Your task to perform on an android device: turn off sleep mode Image 0: 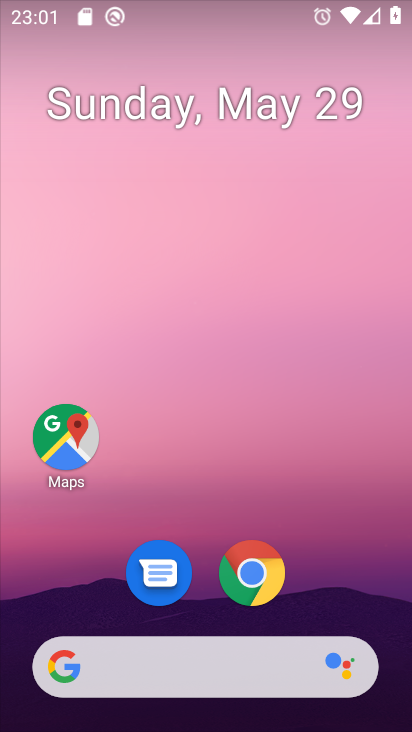
Step 0: drag from (211, 503) to (222, 1)
Your task to perform on an android device: turn off sleep mode Image 1: 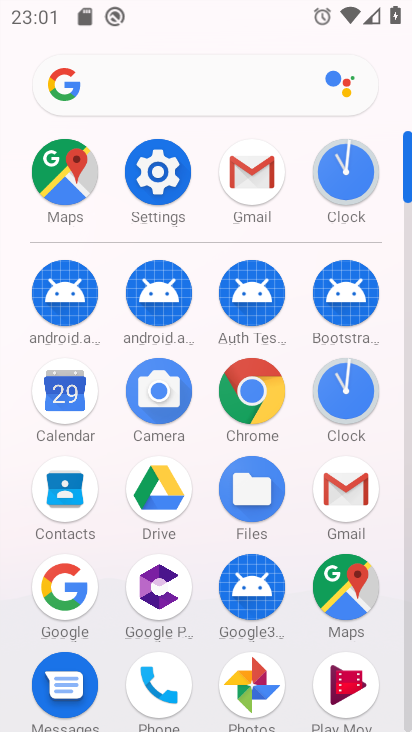
Step 1: click (156, 176)
Your task to perform on an android device: turn off sleep mode Image 2: 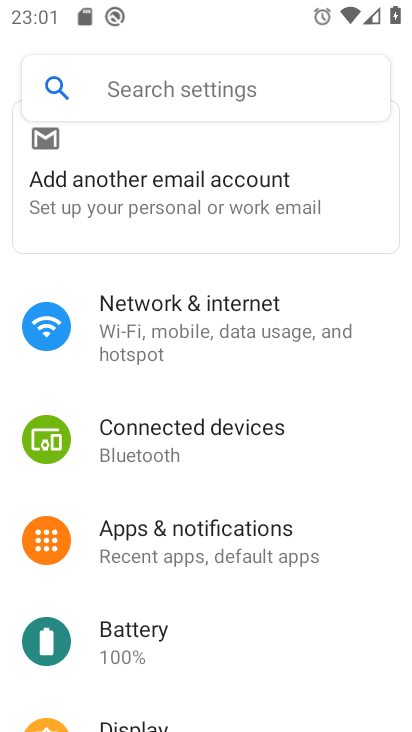
Step 2: drag from (234, 607) to (273, 138)
Your task to perform on an android device: turn off sleep mode Image 3: 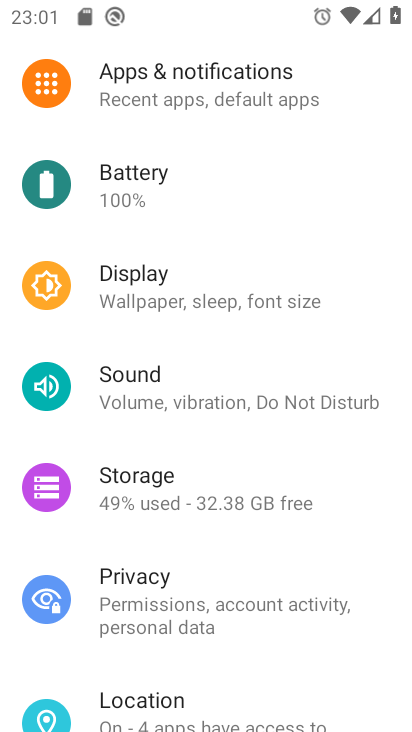
Step 3: click (240, 291)
Your task to perform on an android device: turn off sleep mode Image 4: 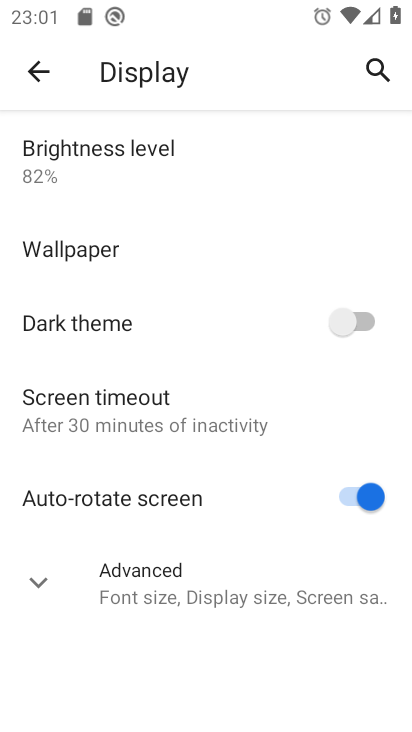
Step 4: click (40, 573)
Your task to perform on an android device: turn off sleep mode Image 5: 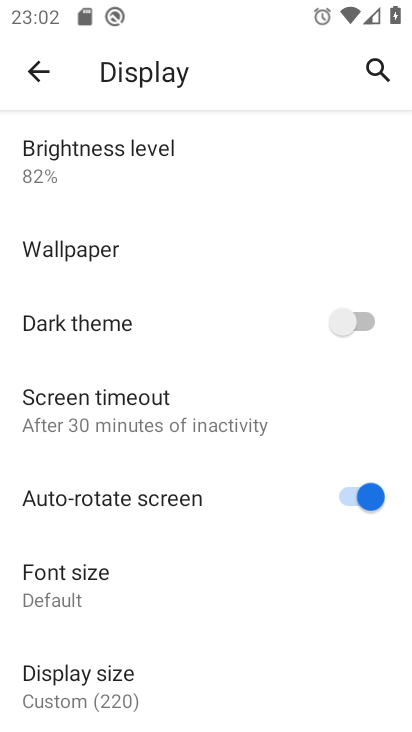
Step 5: task complete